Your task to perform on an android device: open the mobile data screen to see how much data has been used Image 0: 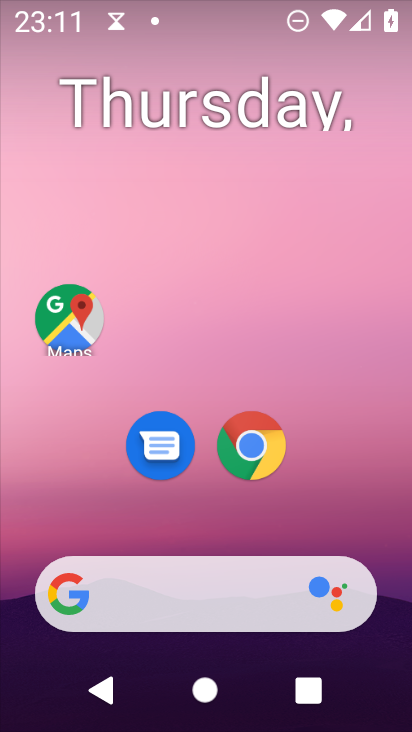
Step 0: drag from (247, 730) to (215, 3)
Your task to perform on an android device: open the mobile data screen to see how much data has been used Image 1: 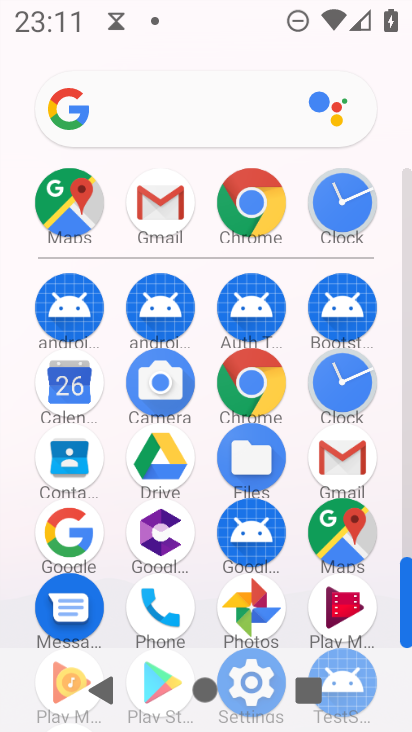
Step 1: click (253, 667)
Your task to perform on an android device: open the mobile data screen to see how much data has been used Image 2: 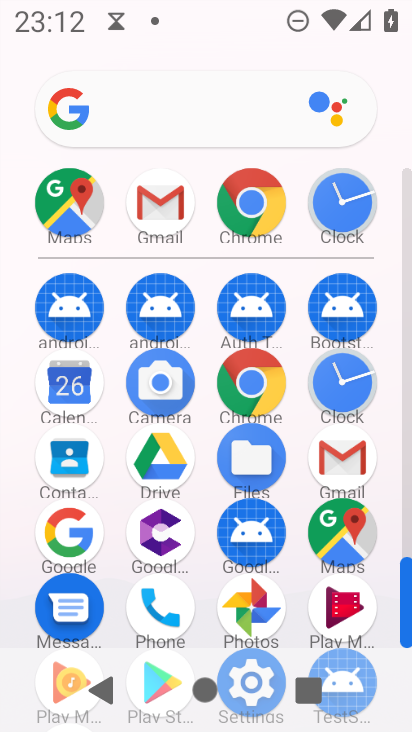
Step 2: drag from (291, 625) to (293, 309)
Your task to perform on an android device: open the mobile data screen to see how much data has been used Image 3: 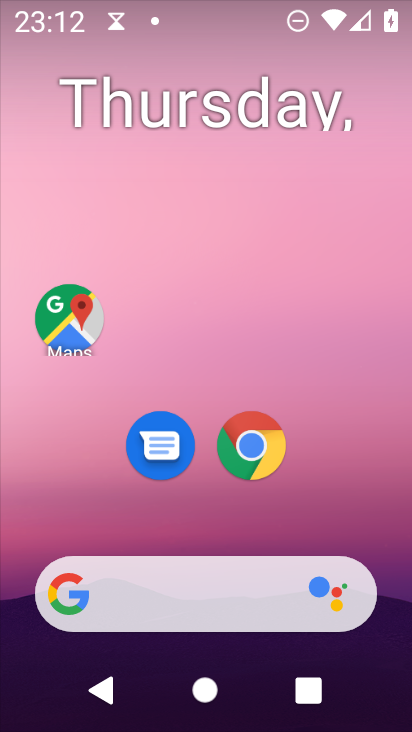
Step 3: drag from (230, 716) to (239, 57)
Your task to perform on an android device: open the mobile data screen to see how much data has been used Image 4: 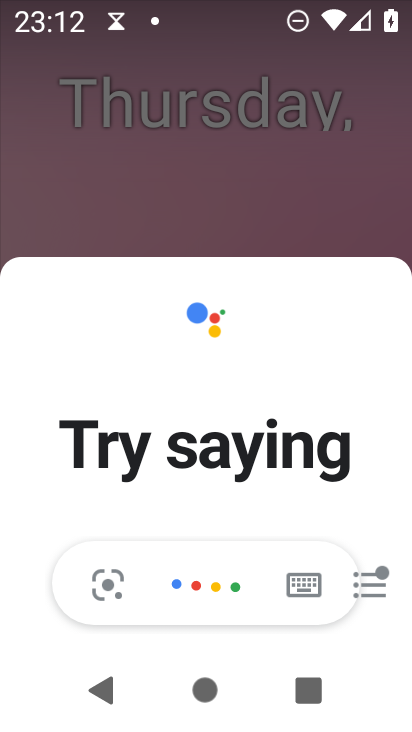
Step 4: click (223, 177)
Your task to perform on an android device: open the mobile data screen to see how much data has been used Image 5: 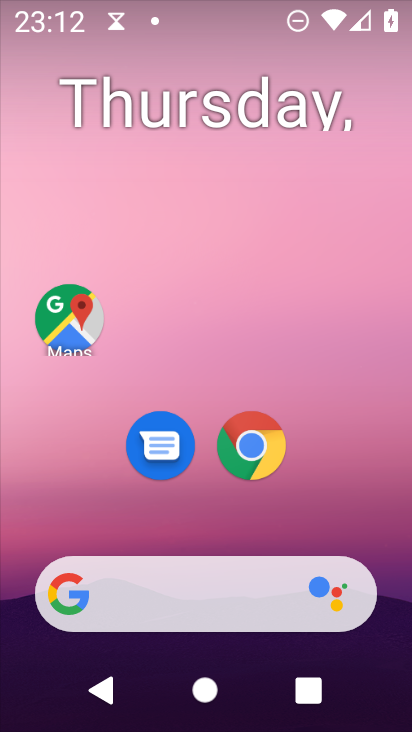
Step 5: drag from (224, 724) to (231, 271)
Your task to perform on an android device: open the mobile data screen to see how much data has been used Image 6: 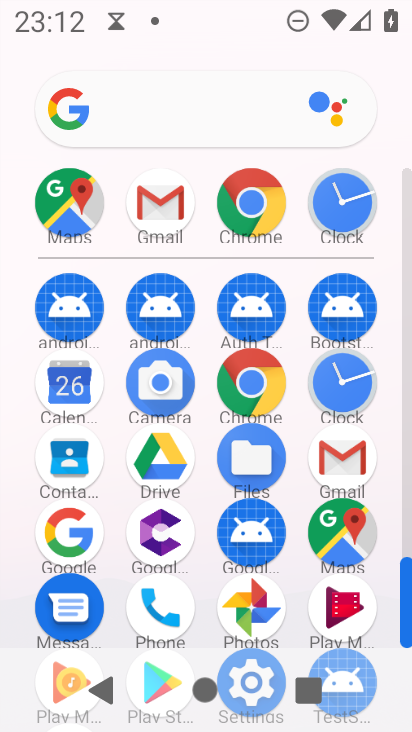
Step 6: drag from (288, 609) to (292, 203)
Your task to perform on an android device: open the mobile data screen to see how much data has been used Image 7: 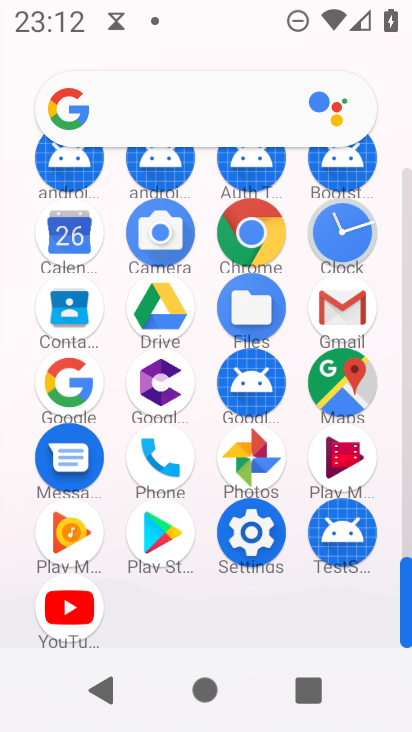
Step 7: click (249, 538)
Your task to perform on an android device: open the mobile data screen to see how much data has been used Image 8: 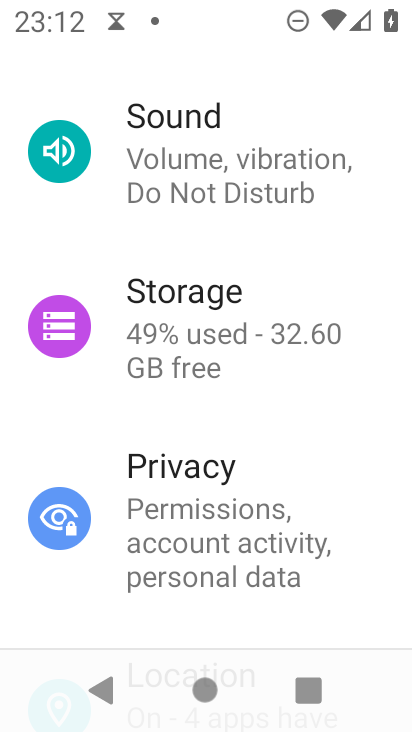
Step 8: drag from (346, 108) to (335, 487)
Your task to perform on an android device: open the mobile data screen to see how much data has been used Image 9: 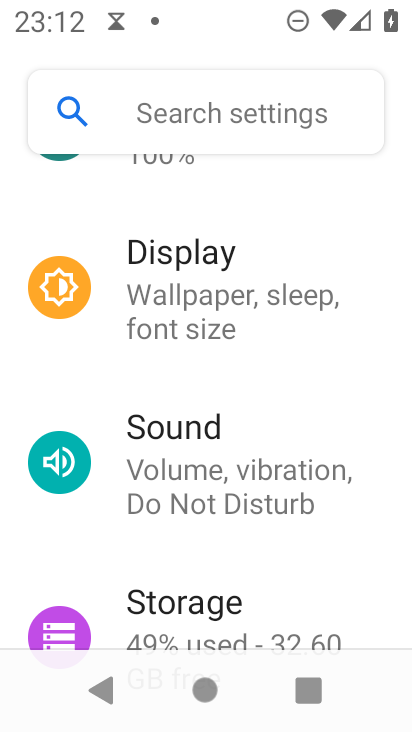
Step 9: drag from (317, 192) to (316, 673)
Your task to perform on an android device: open the mobile data screen to see how much data has been used Image 10: 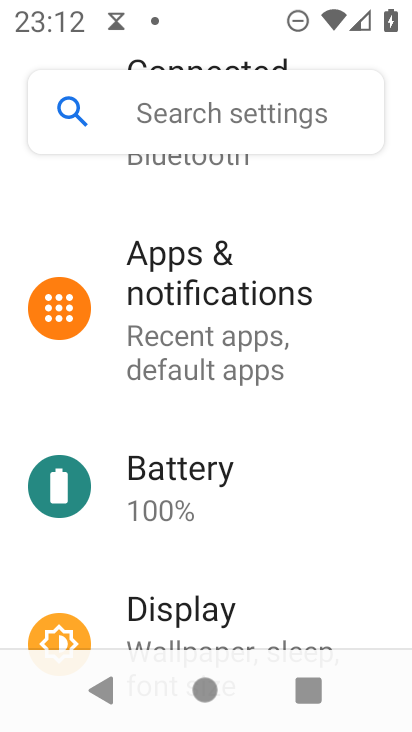
Step 10: drag from (326, 200) to (306, 576)
Your task to perform on an android device: open the mobile data screen to see how much data has been used Image 11: 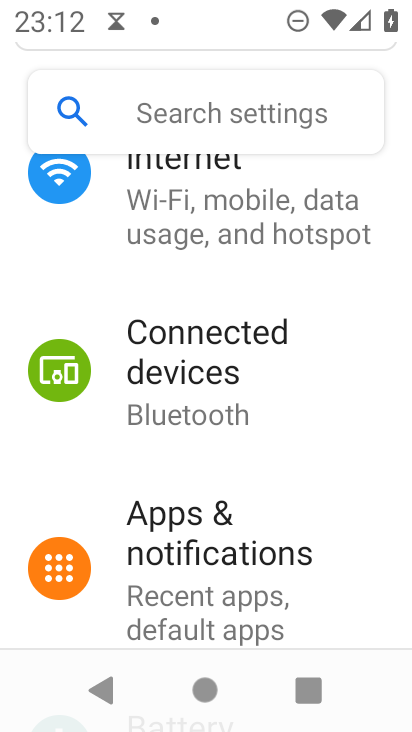
Step 11: drag from (315, 171) to (309, 517)
Your task to perform on an android device: open the mobile data screen to see how much data has been used Image 12: 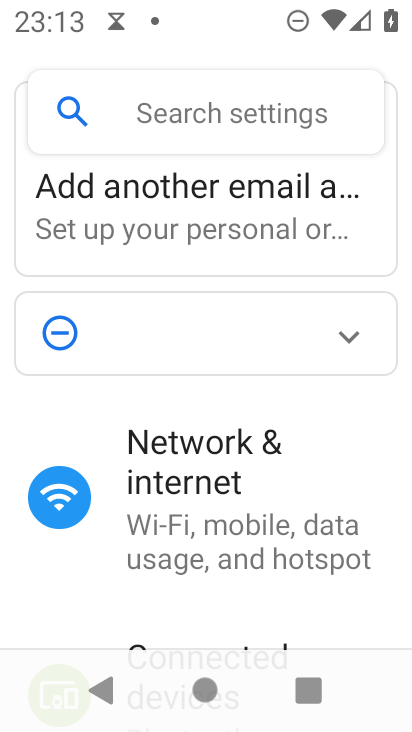
Step 12: click (191, 507)
Your task to perform on an android device: open the mobile data screen to see how much data has been used Image 13: 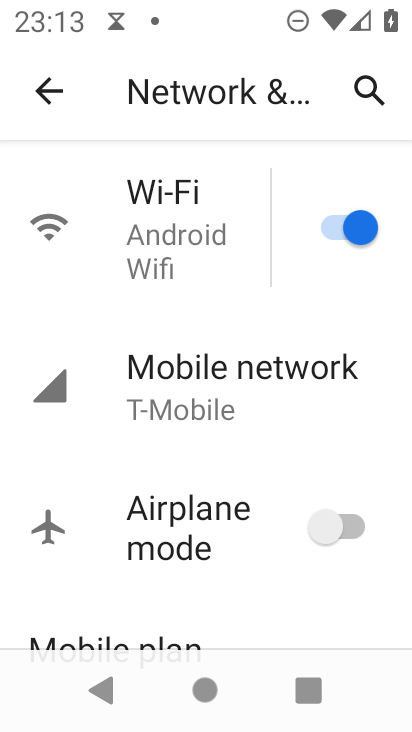
Step 13: drag from (162, 616) to (146, 275)
Your task to perform on an android device: open the mobile data screen to see how much data has been used Image 14: 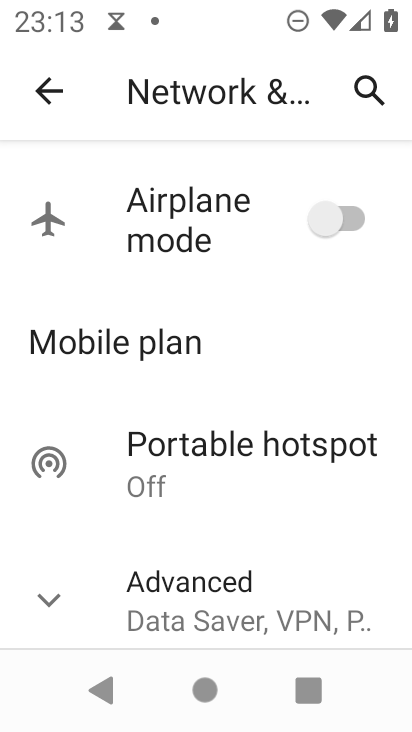
Step 14: drag from (172, 199) to (183, 582)
Your task to perform on an android device: open the mobile data screen to see how much data has been used Image 15: 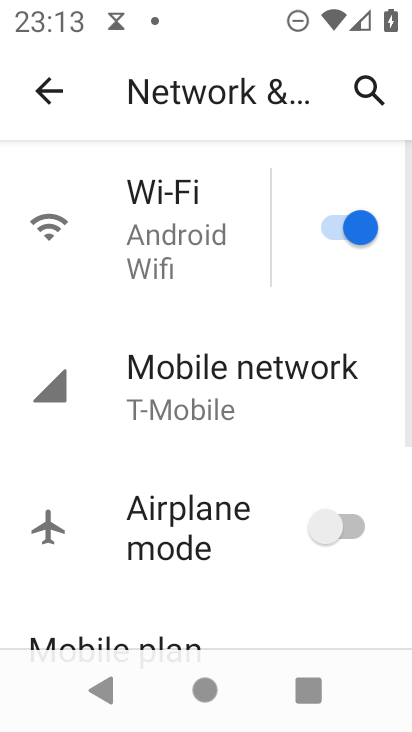
Step 15: click (177, 397)
Your task to perform on an android device: open the mobile data screen to see how much data has been used Image 16: 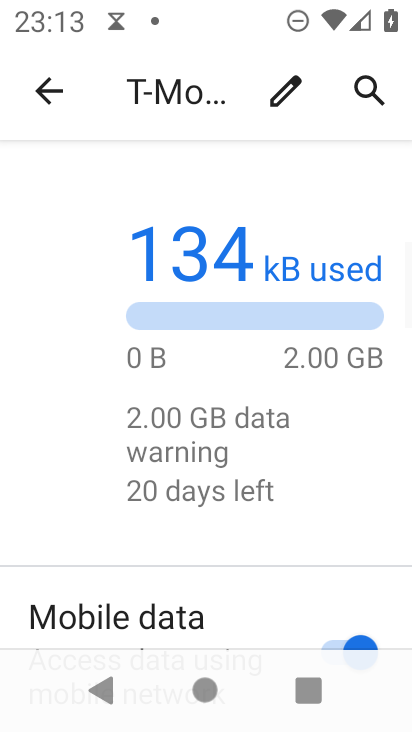
Step 16: drag from (239, 632) to (211, 197)
Your task to perform on an android device: open the mobile data screen to see how much data has been used Image 17: 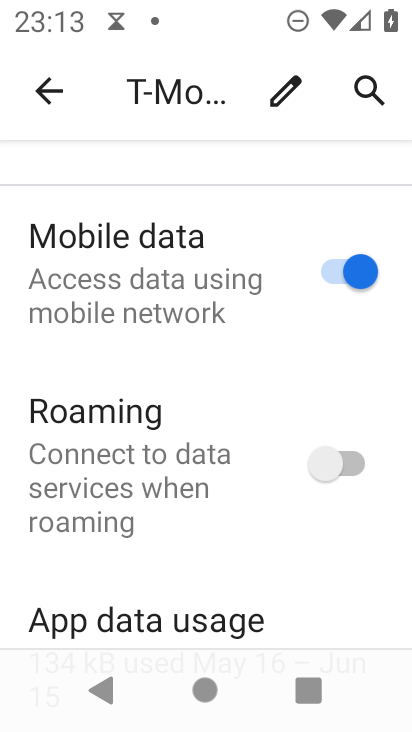
Step 17: drag from (178, 601) to (179, 131)
Your task to perform on an android device: open the mobile data screen to see how much data has been used Image 18: 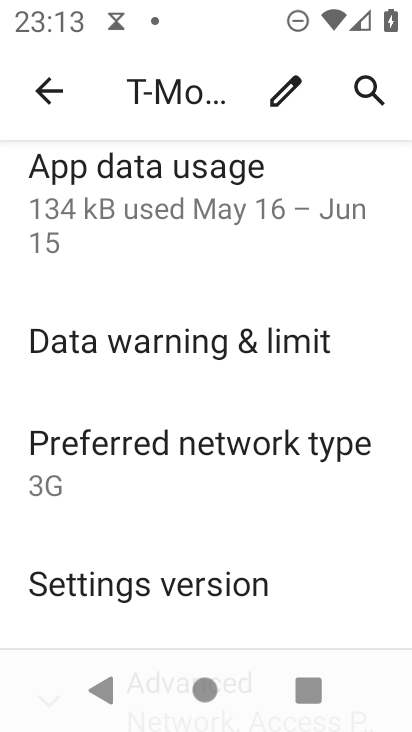
Step 18: click (101, 203)
Your task to perform on an android device: open the mobile data screen to see how much data has been used Image 19: 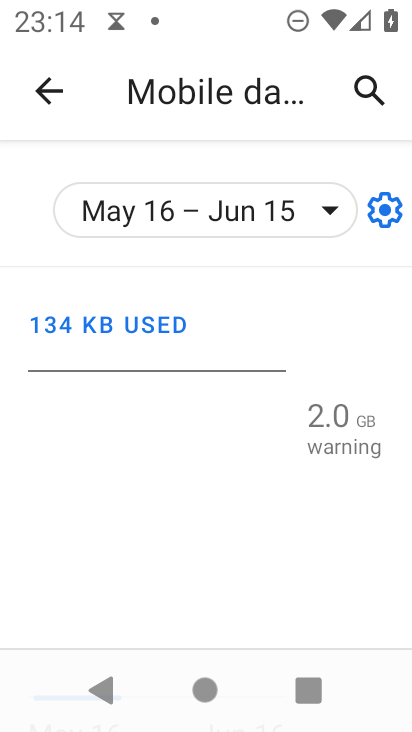
Step 19: task complete